Your task to perform on an android device: Open Google Image 0: 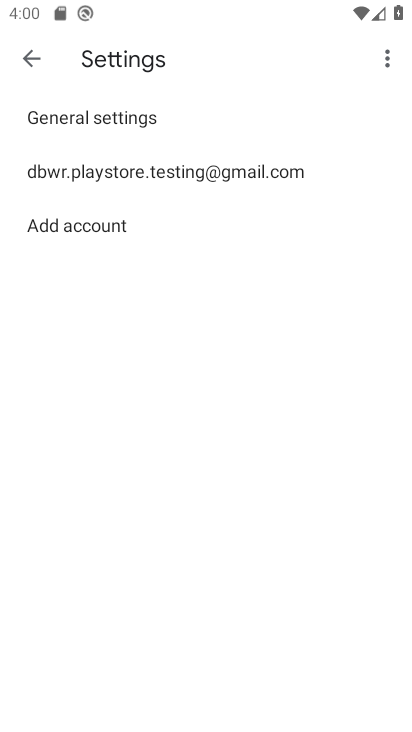
Step 0: press home button
Your task to perform on an android device: Open Google Image 1: 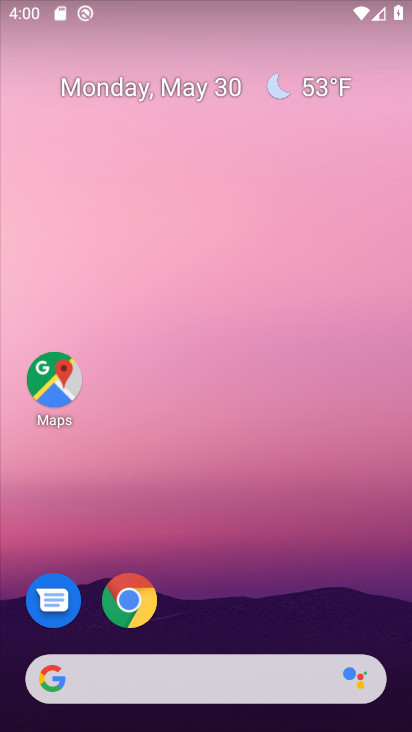
Step 1: drag from (358, 449) to (348, 37)
Your task to perform on an android device: Open Google Image 2: 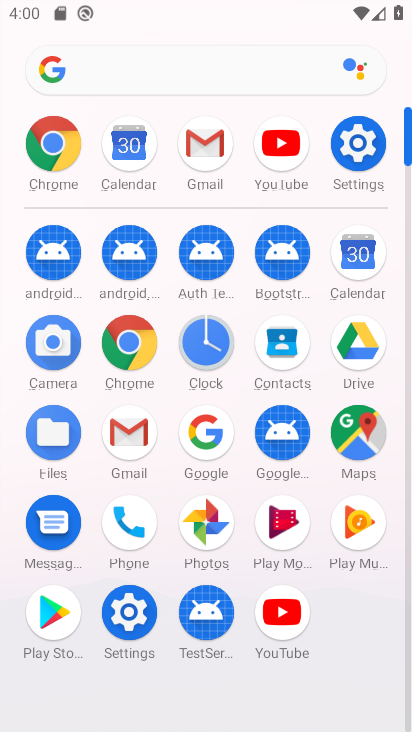
Step 2: click (200, 432)
Your task to perform on an android device: Open Google Image 3: 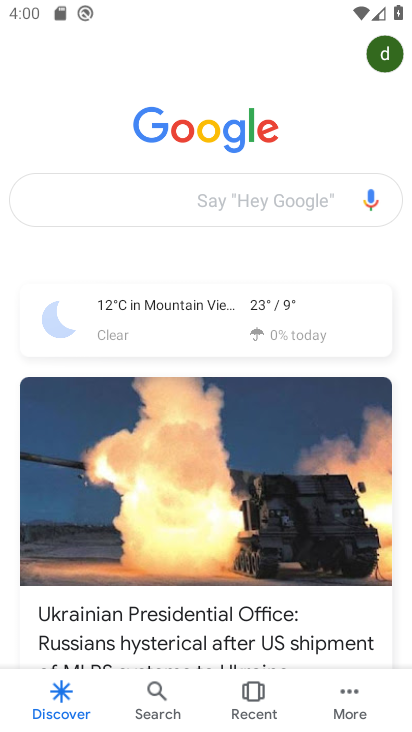
Step 3: task complete